Your task to perform on an android device: Is it going to rain tomorrow? Image 0: 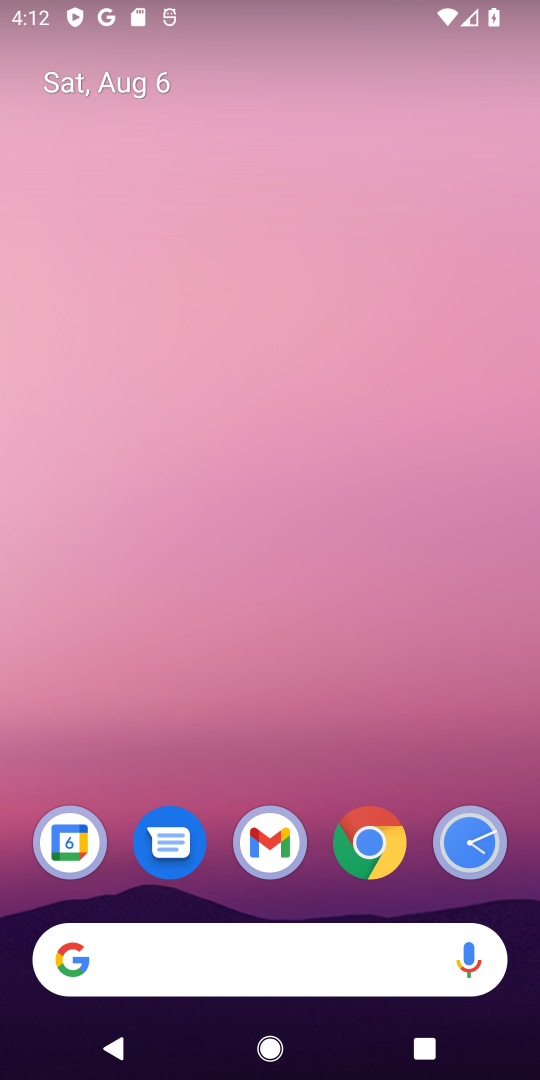
Step 0: drag from (5, 349) to (511, 255)
Your task to perform on an android device: Is it going to rain tomorrow? Image 1: 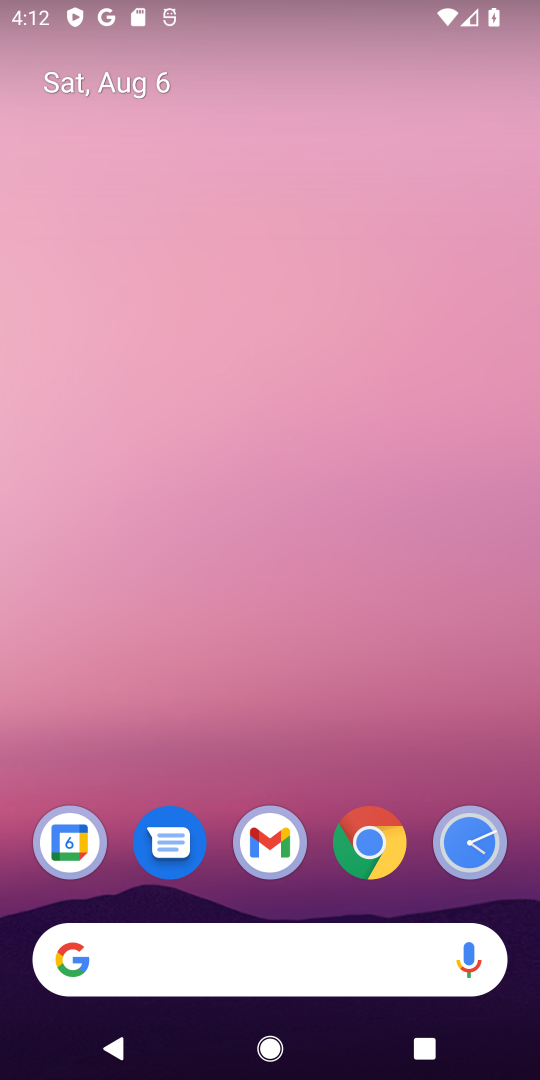
Step 1: task complete